Your task to perform on an android device: remove spam from my inbox in the gmail app Image 0: 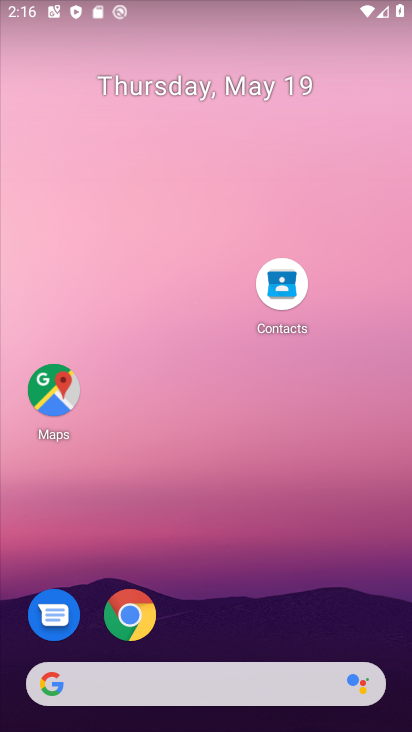
Step 0: drag from (280, 465) to (296, 352)
Your task to perform on an android device: remove spam from my inbox in the gmail app Image 1: 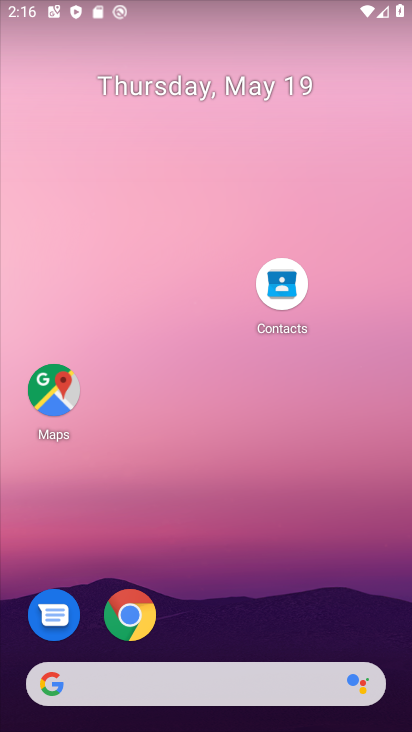
Step 1: drag from (259, 689) to (369, 168)
Your task to perform on an android device: remove spam from my inbox in the gmail app Image 2: 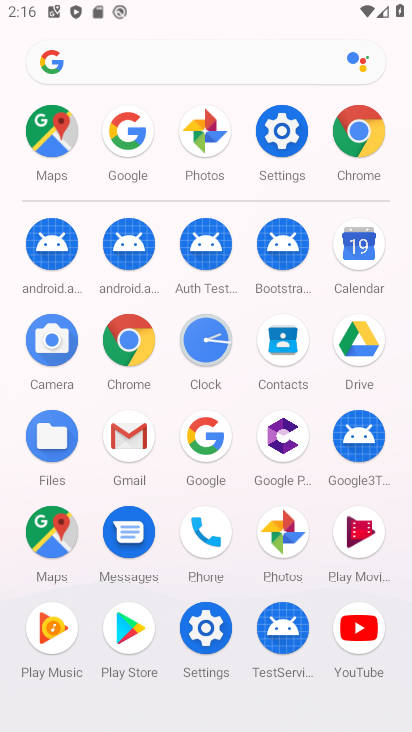
Step 2: click (144, 447)
Your task to perform on an android device: remove spam from my inbox in the gmail app Image 3: 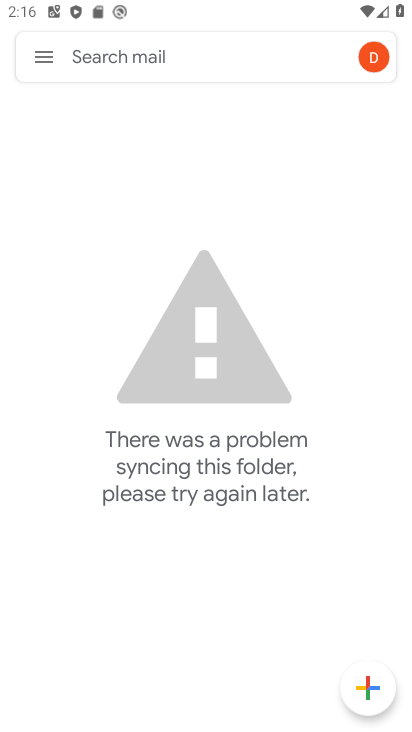
Step 3: click (40, 50)
Your task to perform on an android device: remove spam from my inbox in the gmail app Image 4: 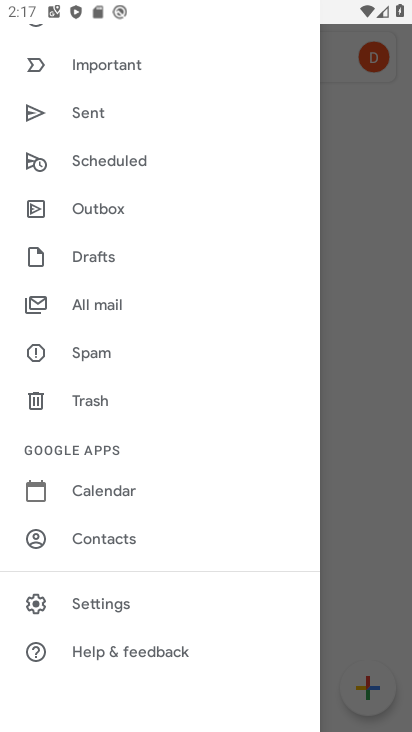
Step 4: task complete